Your task to perform on an android device: Where can I buy a nice beach cooler? Image 0: 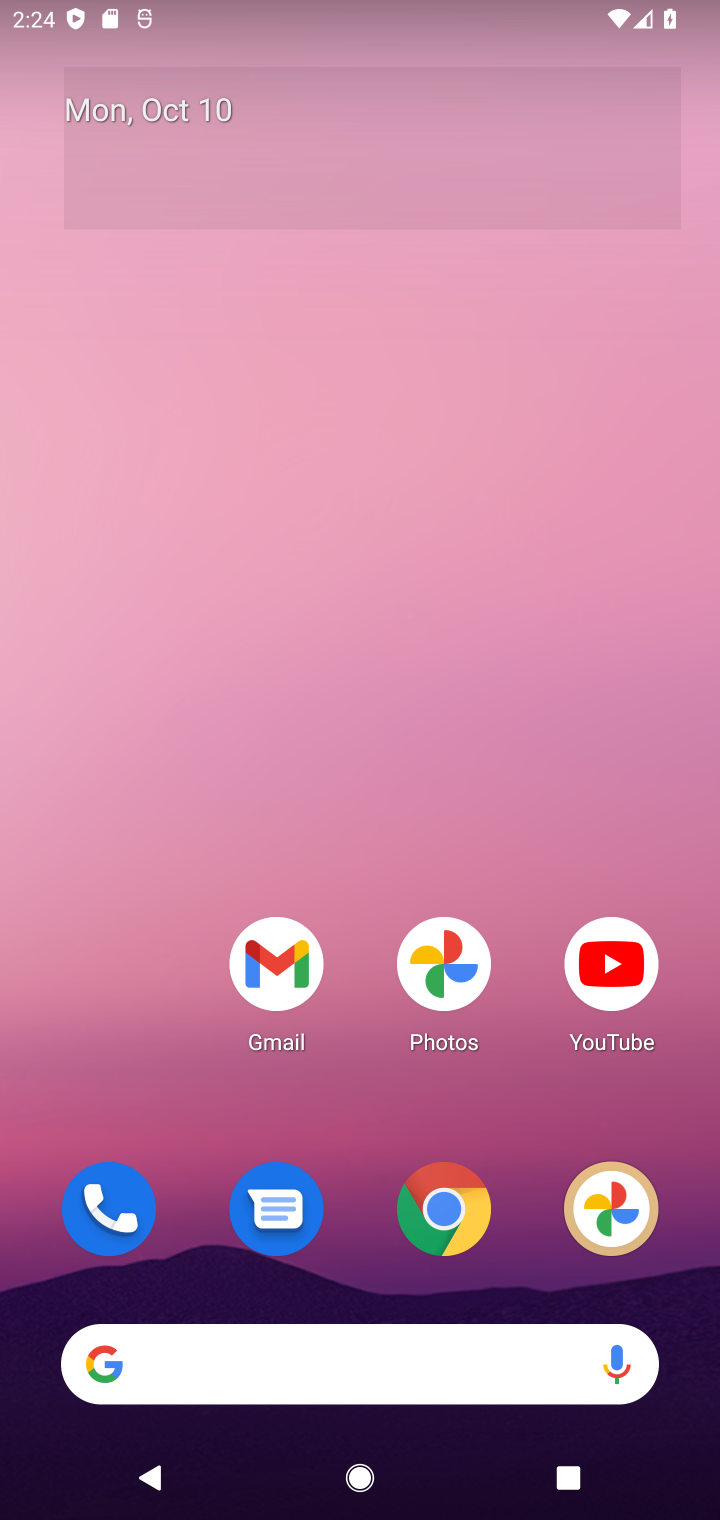
Step 0: click (484, 1226)
Your task to perform on an android device: Where can I buy a nice beach cooler? Image 1: 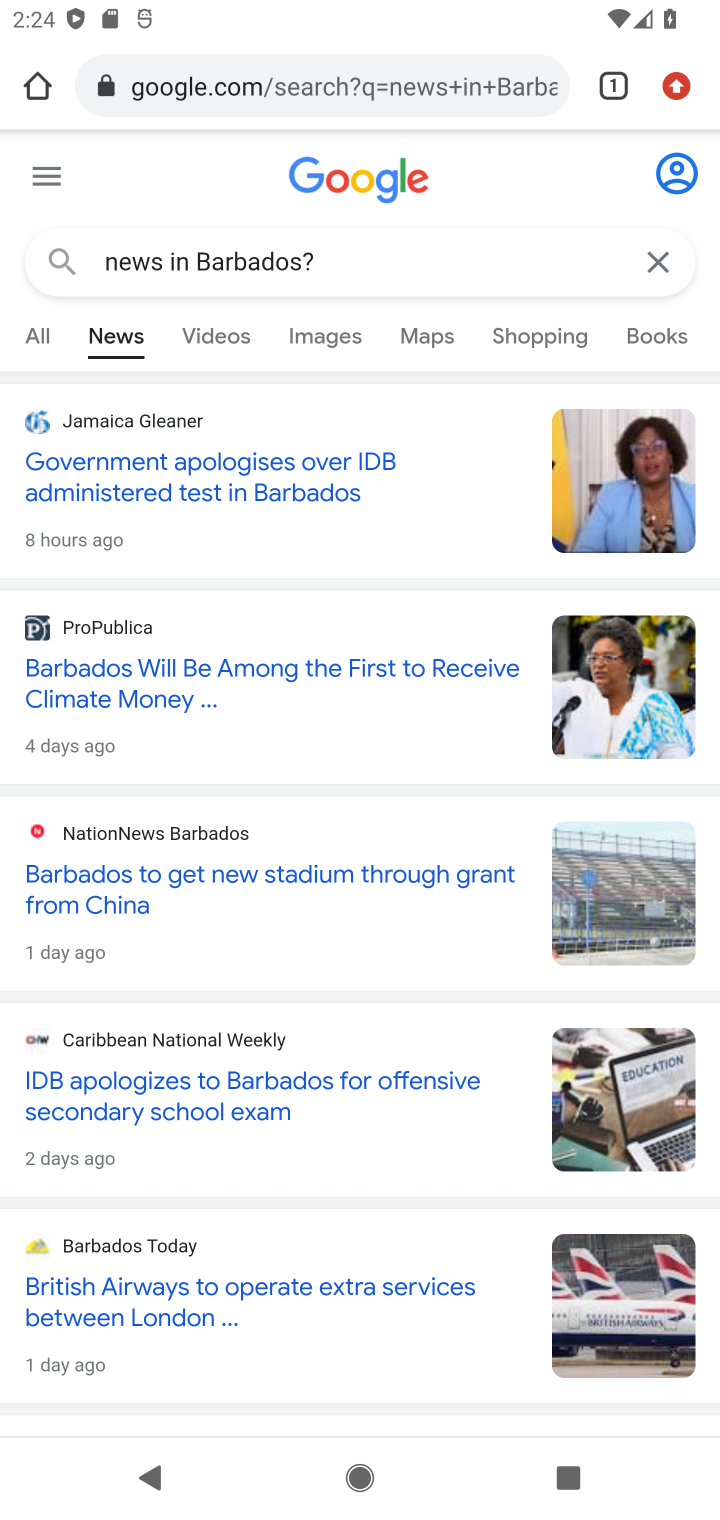
Step 1: click (398, 248)
Your task to perform on an android device: Where can I buy a nice beach cooler? Image 2: 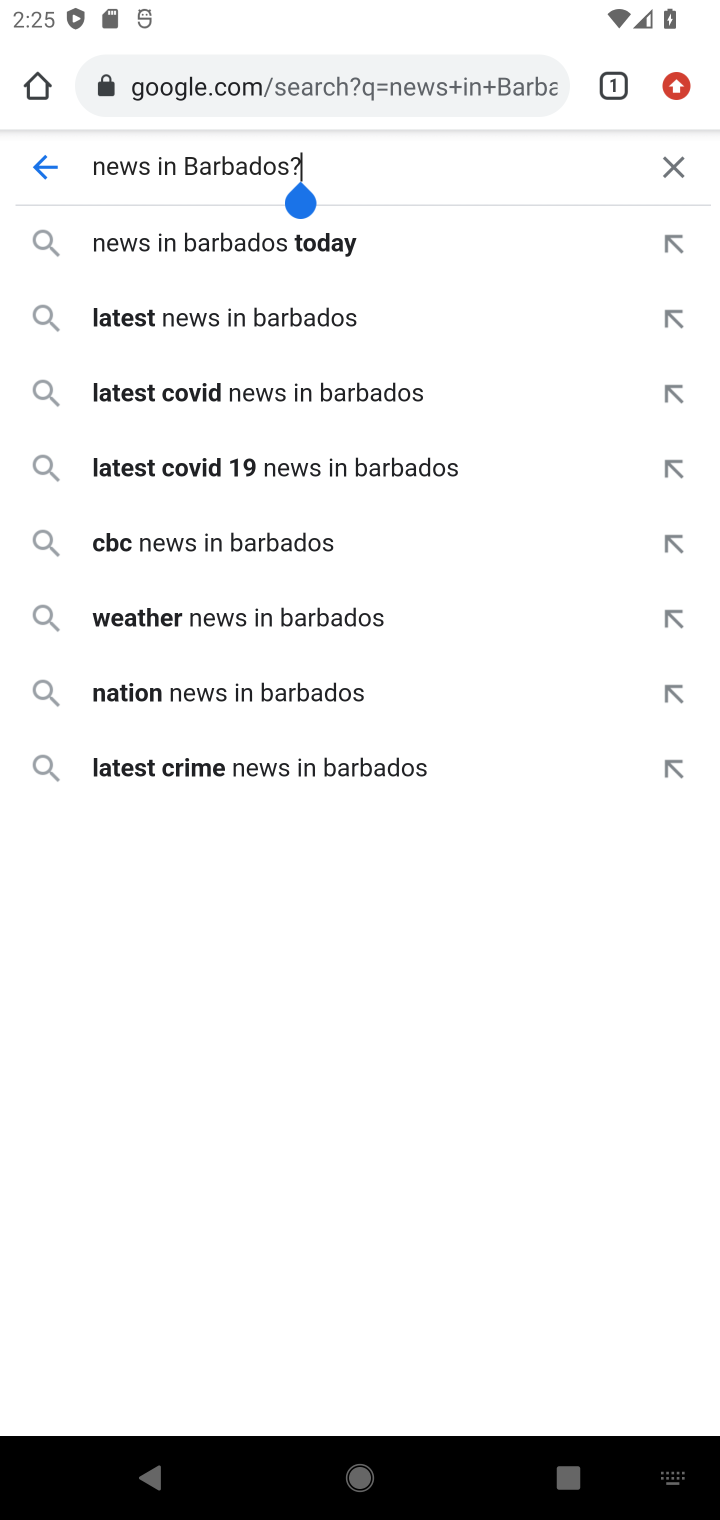
Step 2: click (683, 175)
Your task to perform on an android device: Where can I buy a nice beach cooler? Image 3: 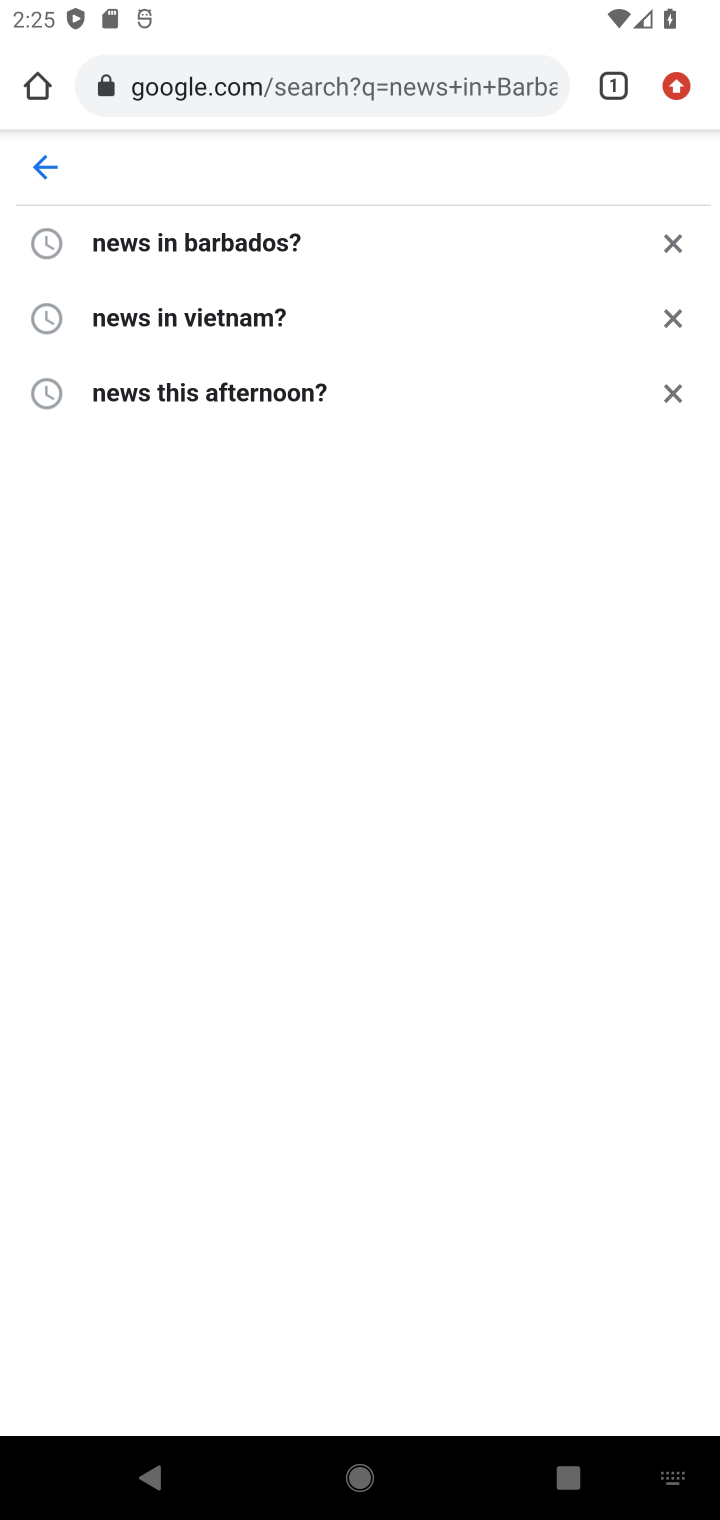
Step 3: type "Where can I buy a nice beach cooler?"
Your task to perform on an android device: Where can I buy a nice beach cooler? Image 4: 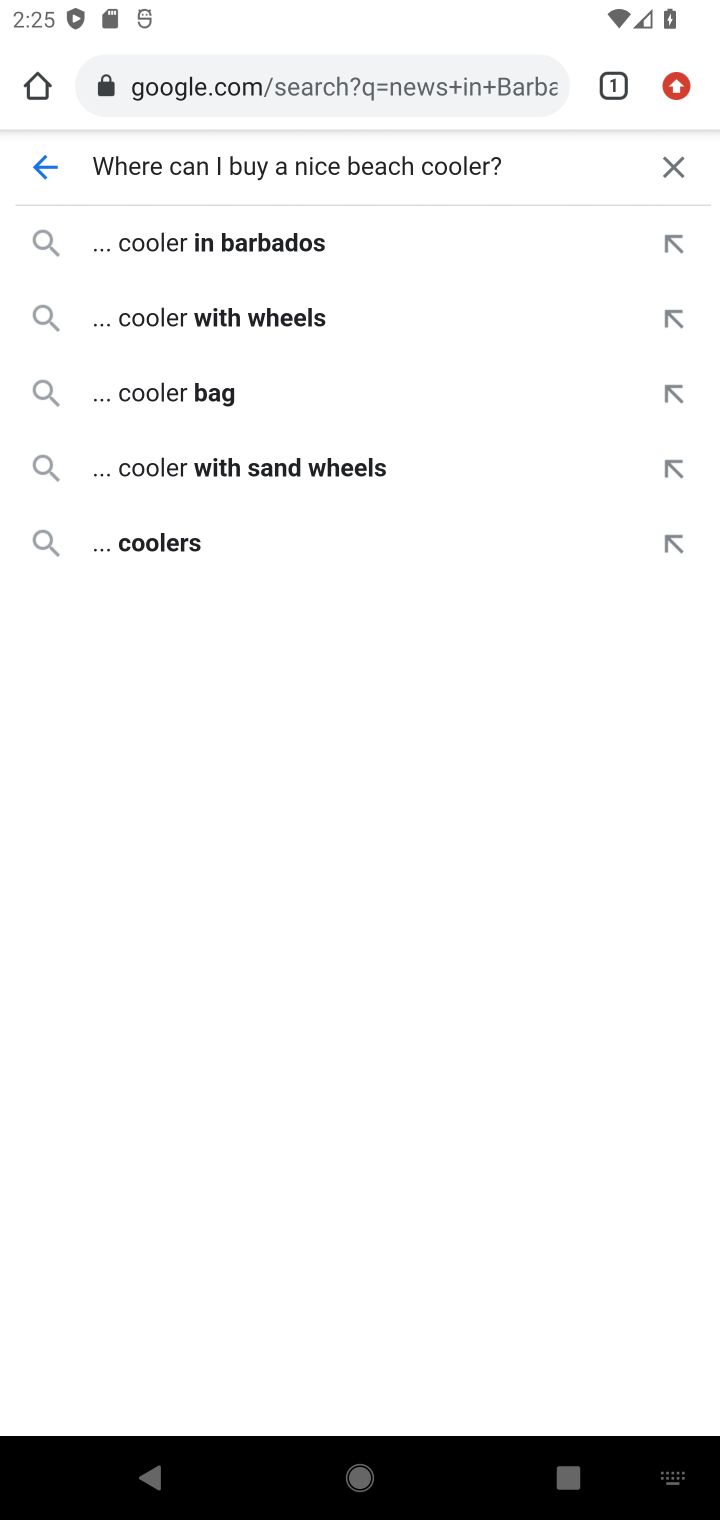
Step 4: press enter
Your task to perform on an android device: Where can I buy a nice beach cooler? Image 5: 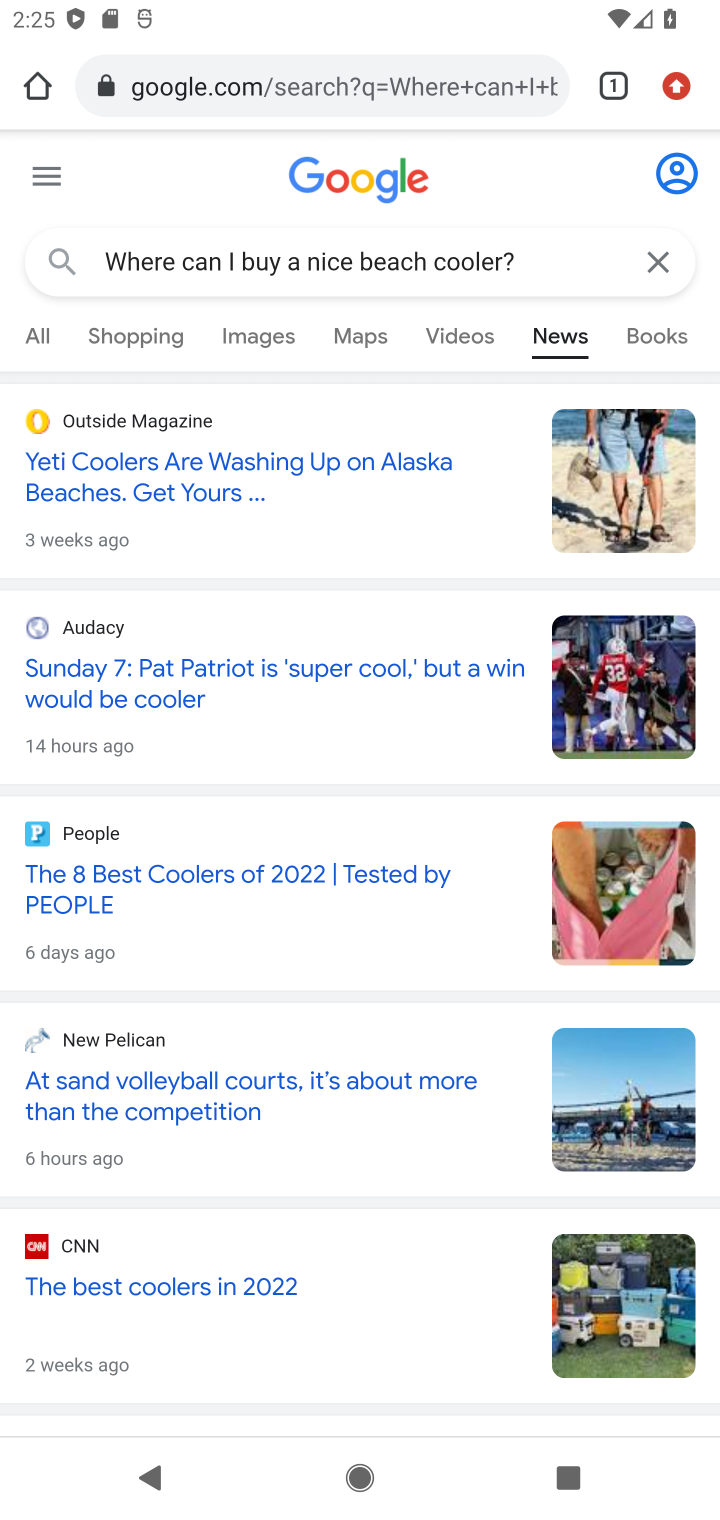
Step 5: click (26, 346)
Your task to perform on an android device: Where can I buy a nice beach cooler? Image 6: 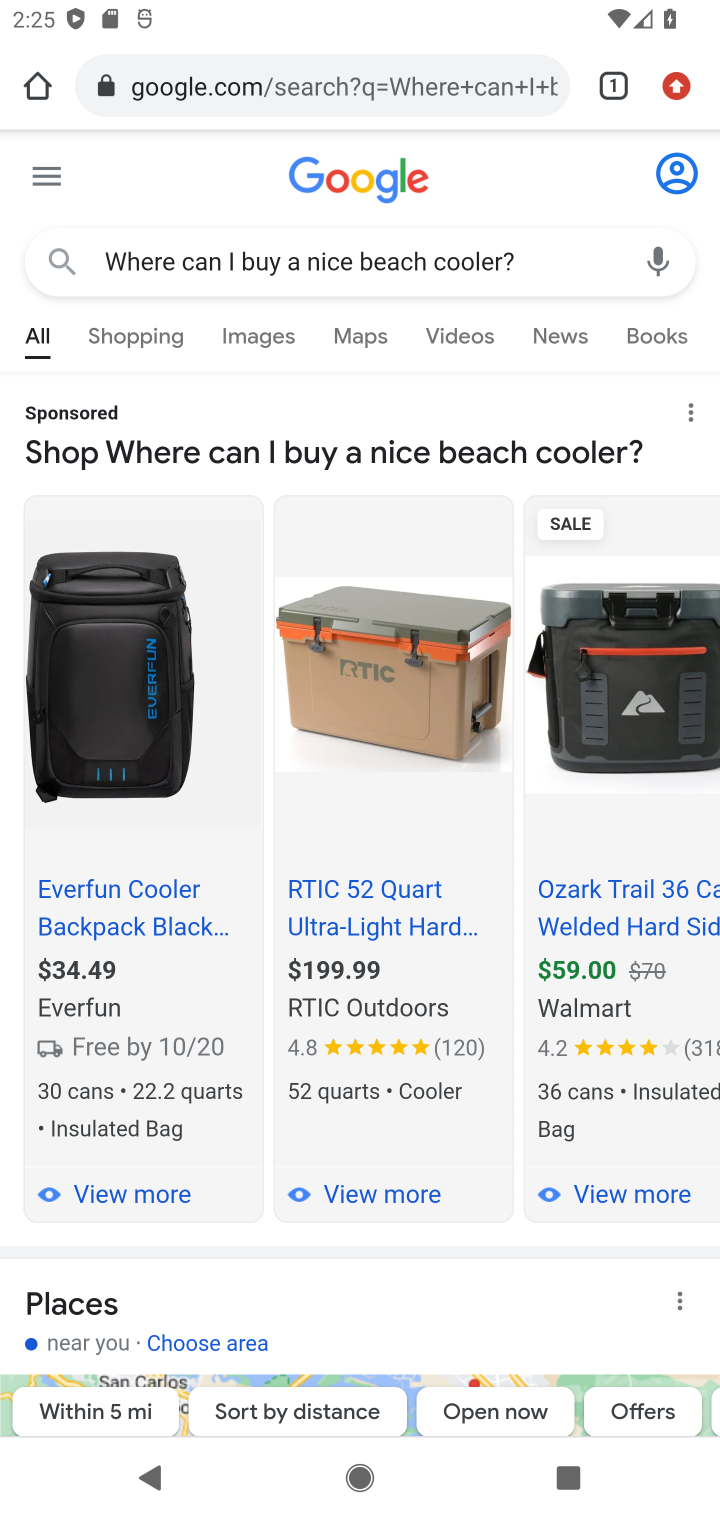
Step 6: click (160, 326)
Your task to perform on an android device: Where can I buy a nice beach cooler? Image 7: 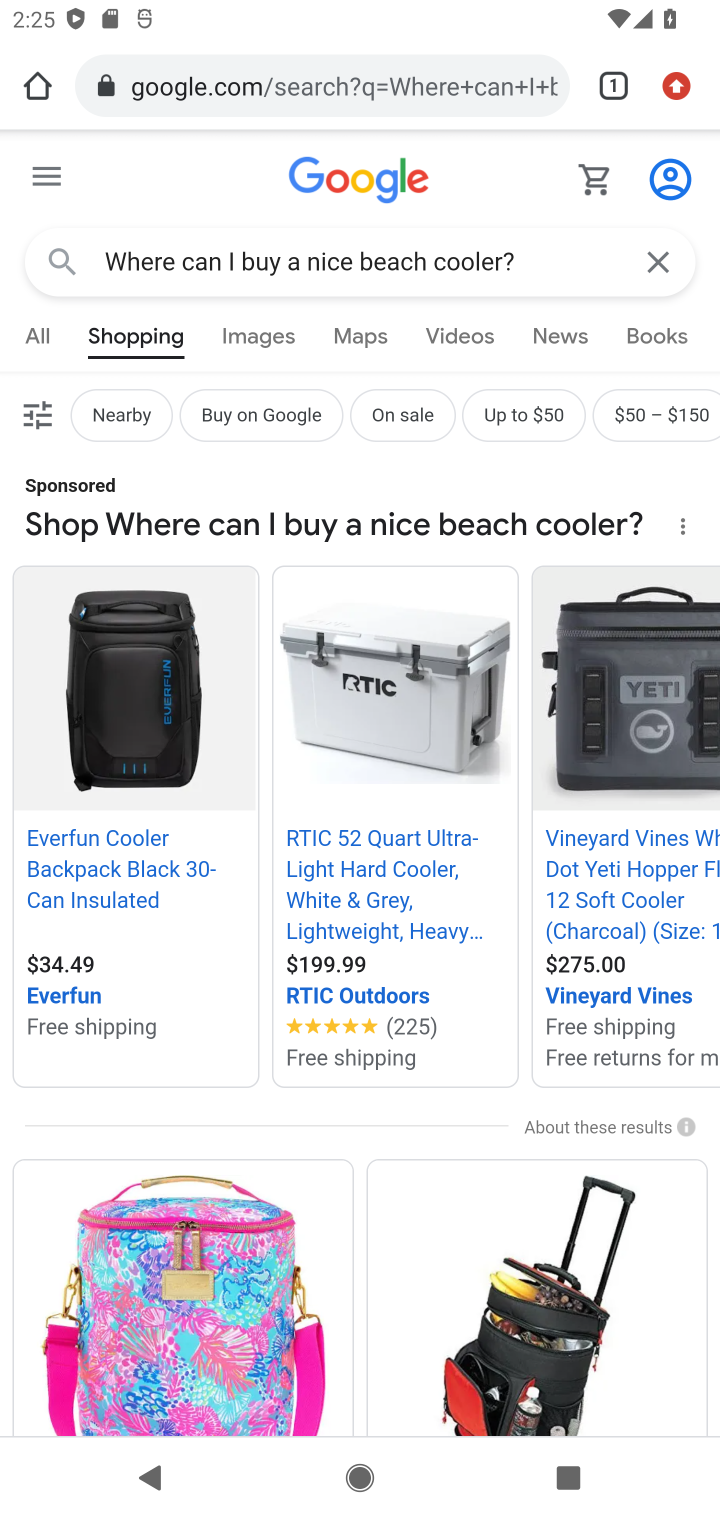
Step 7: task complete